Your task to perform on an android device: Go to Reddit.com Image 0: 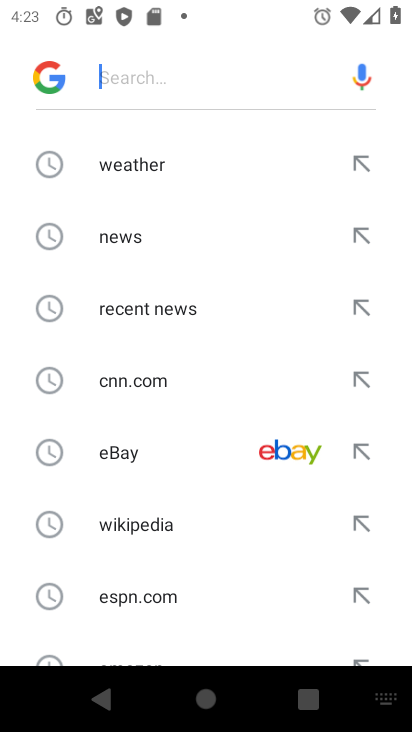
Step 0: type "Reddit.com"
Your task to perform on an android device: Go to Reddit.com Image 1: 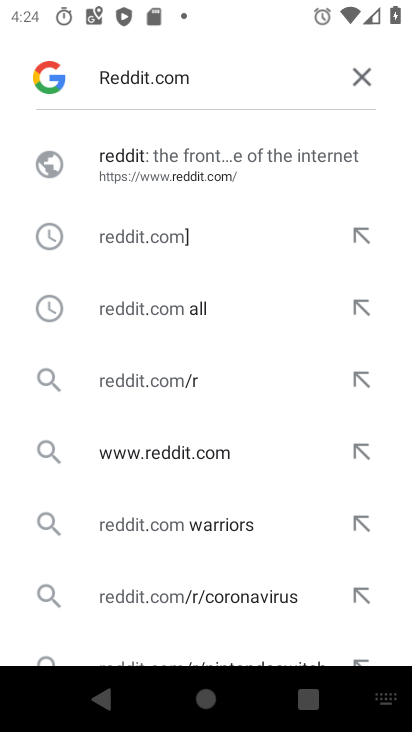
Step 1: click (134, 234)
Your task to perform on an android device: Go to Reddit.com Image 2: 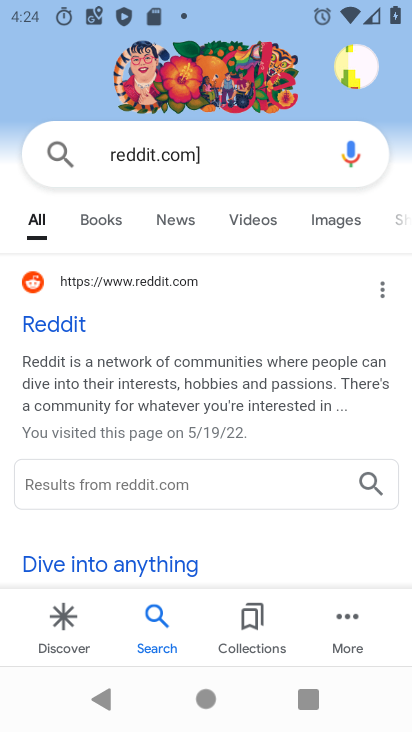
Step 2: task complete